Your task to perform on an android device: Go to internet settings Image 0: 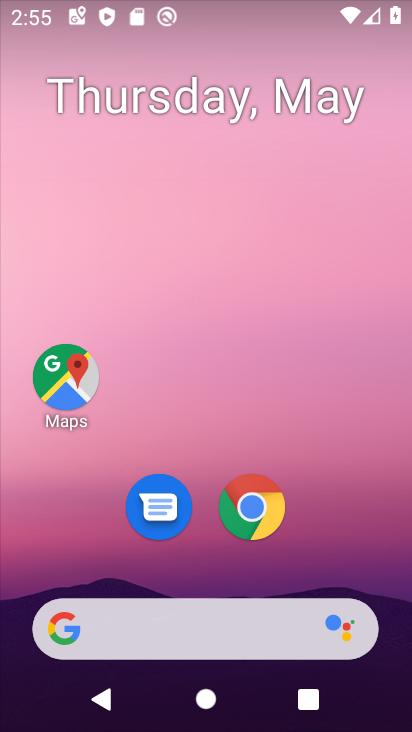
Step 0: drag from (365, 570) to (298, 22)
Your task to perform on an android device: Go to internet settings Image 1: 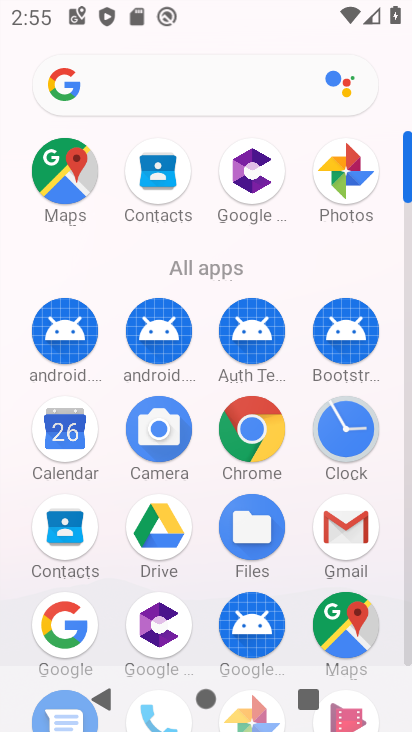
Step 1: click (407, 510)
Your task to perform on an android device: Go to internet settings Image 2: 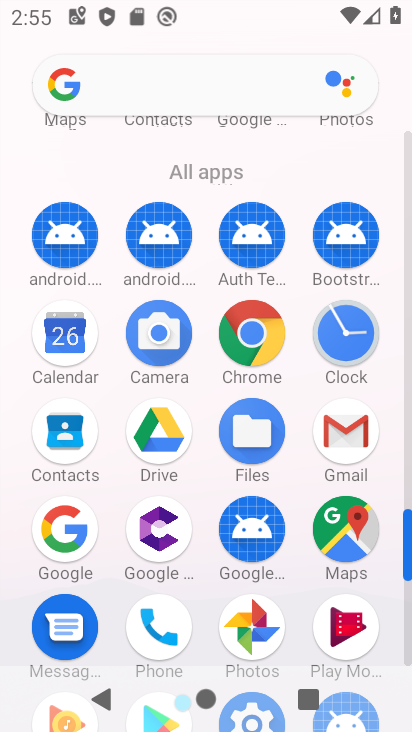
Step 2: click (407, 662)
Your task to perform on an android device: Go to internet settings Image 3: 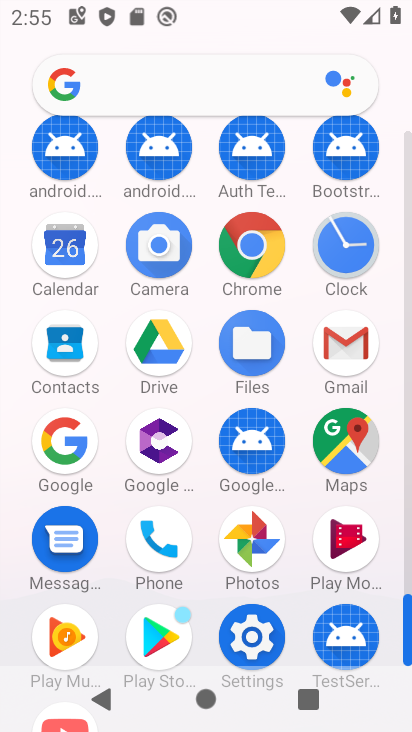
Step 3: click (269, 633)
Your task to perform on an android device: Go to internet settings Image 4: 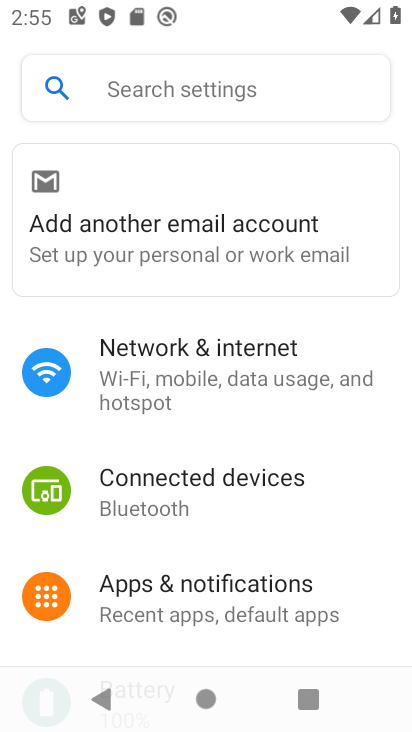
Step 4: click (308, 369)
Your task to perform on an android device: Go to internet settings Image 5: 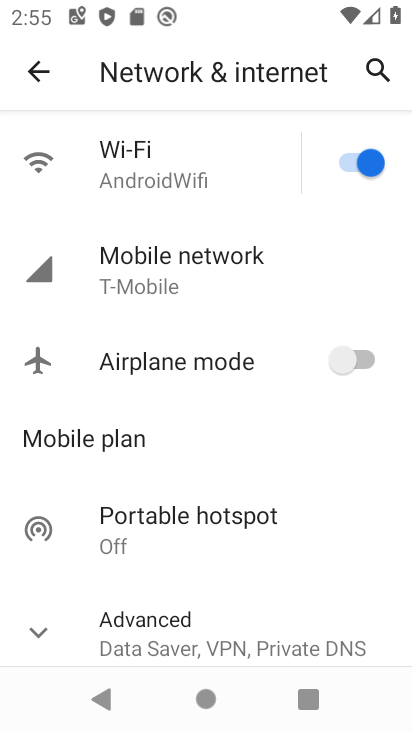
Step 5: task complete